Your task to perform on an android device: turn on the 12-hour format for clock Image 0: 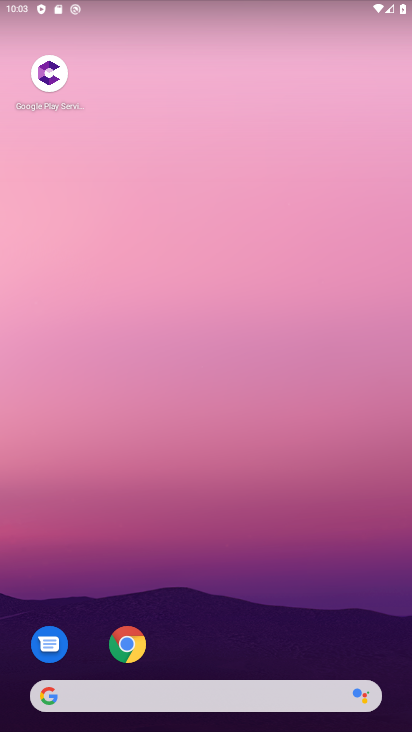
Step 0: press home button
Your task to perform on an android device: turn on the 12-hour format for clock Image 1: 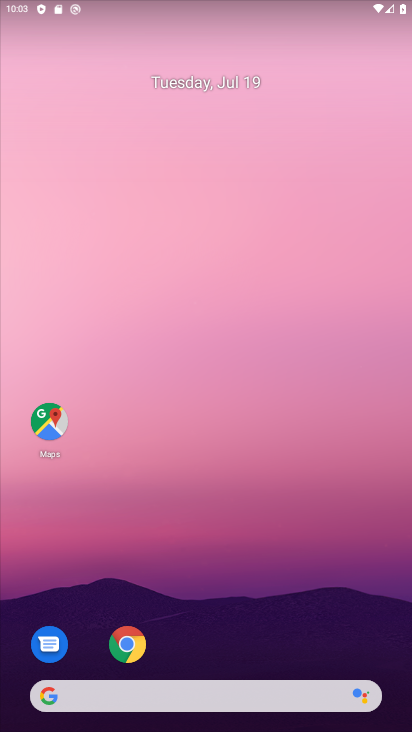
Step 1: drag from (269, 609) to (341, 73)
Your task to perform on an android device: turn on the 12-hour format for clock Image 2: 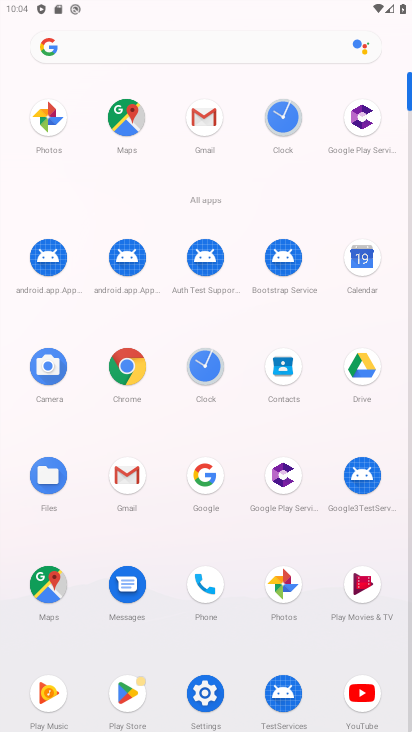
Step 2: click (207, 368)
Your task to perform on an android device: turn on the 12-hour format for clock Image 3: 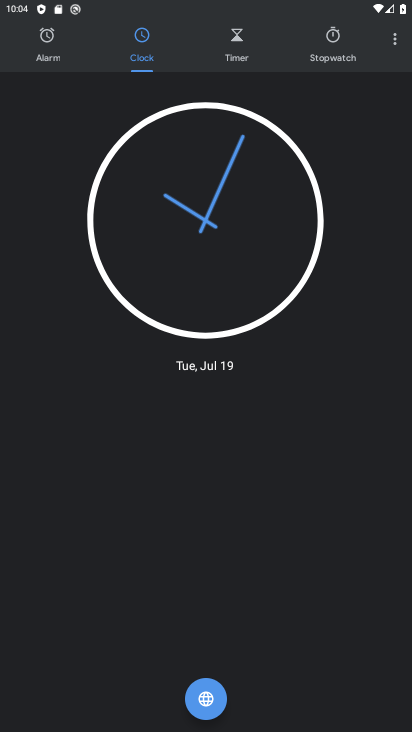
Step 3: click (398, 40)
Your task to perform on an android device: turn on the 12-hour format for clock Image 4: 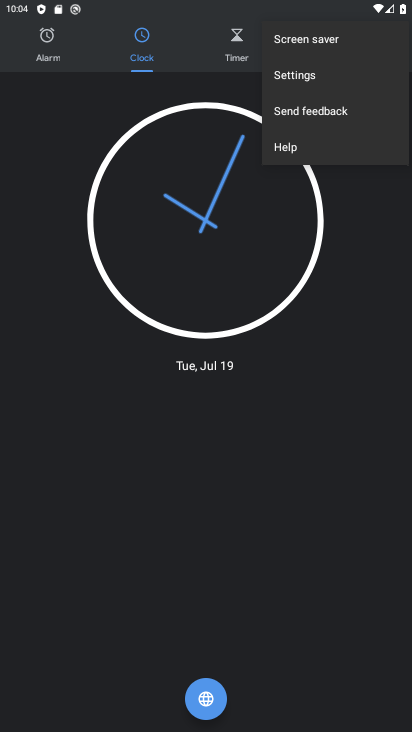
Step 4: click (314, 82)
Your task to perform on an android device: turn on the 12-hour format for clock Image 5: 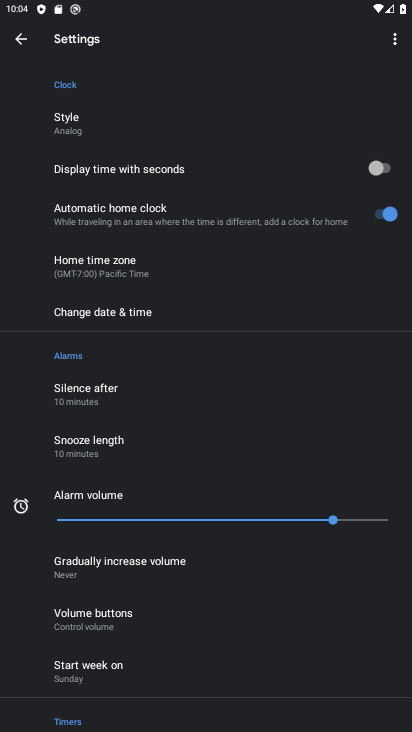
Step 5: drag from (267, 631) to (352, 274)
Your task to perform on an android device: turn on the 12-hour format for clock Image 6: 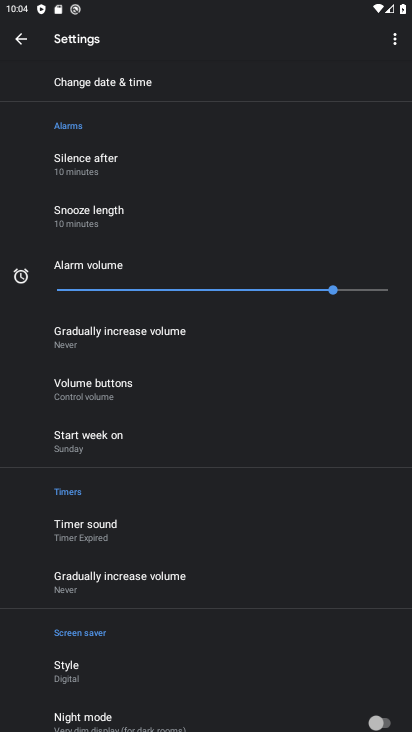
Step 6: click (133, 88)
Your task to perform on an android device: turn on the 12-hour format for clock Image 7: 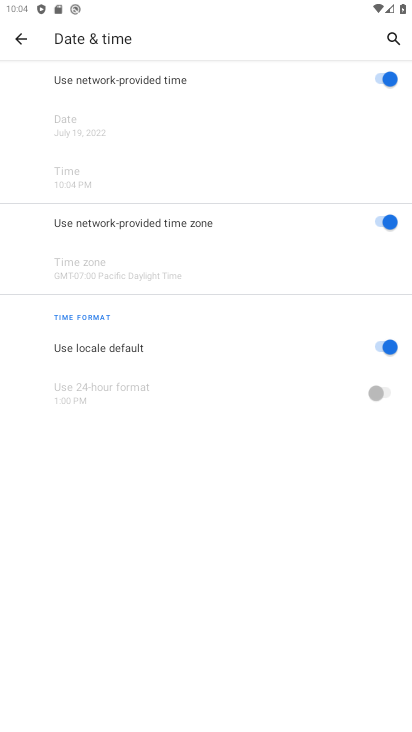
Step 7: task complete